Your task to perform on an android device: open app "Google Pay: Save, Pay, Manage" Image 0: 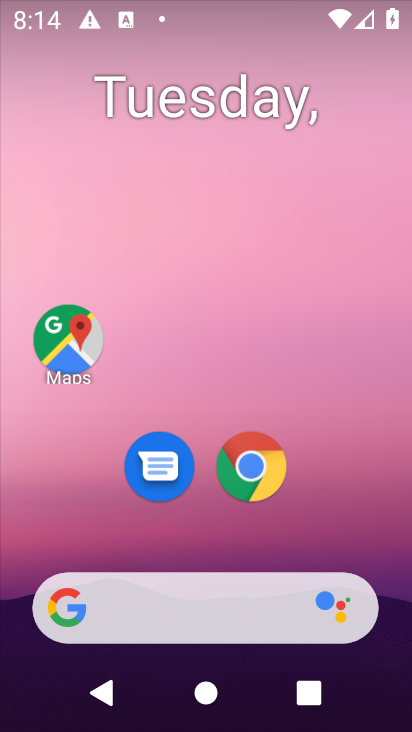
Step 0: drag from (149, 544) to (293, 27)
Your task to perform on an android device: open app "Google Pay: Save, Pay, Manage" Image 1: 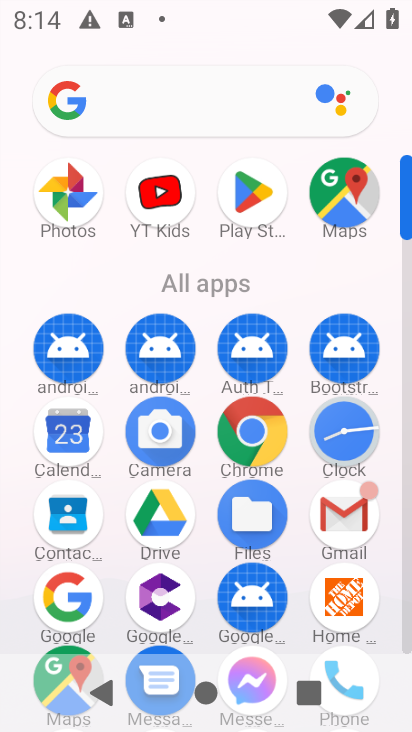
Step 1: click (250, 203)
Your task to perform on an android device: open app "Google Pay: Save, Pay, Manage" Image 2: 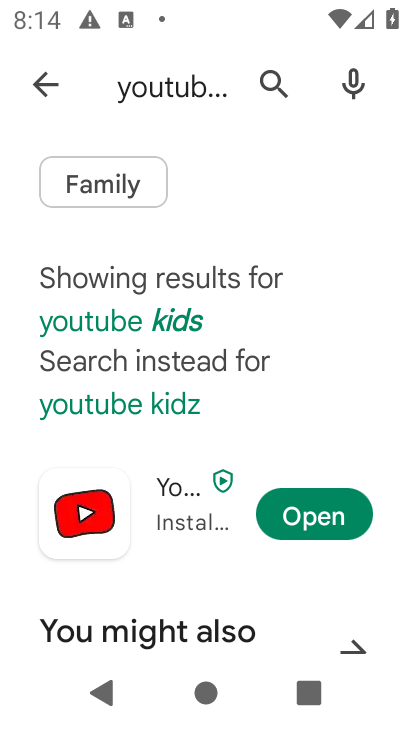
Step 2: click (269, 82)
Your task to perform on an android device: open app "Google Pay: Save, Pay, Manage" Image 3: 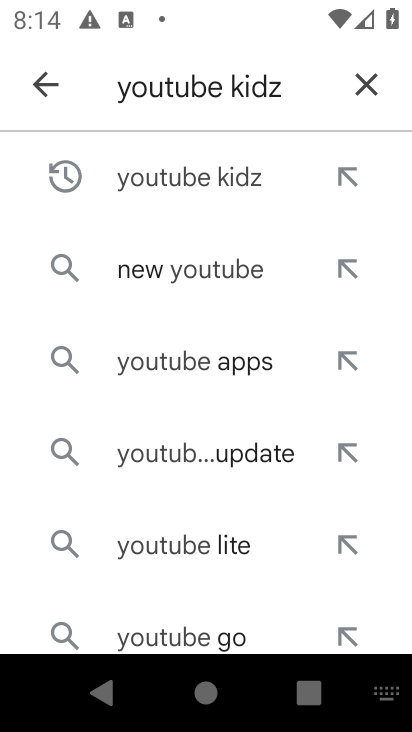
Step 3: click (372, 74)
Your task to perform on an android device: open app "Google Pay: Save, Pay, Manage" Image 4: 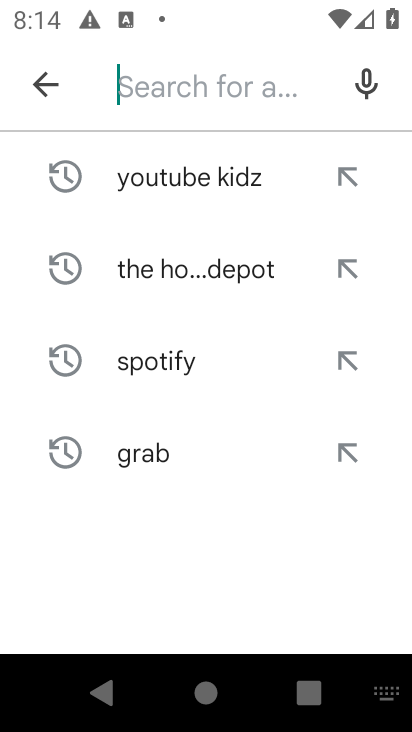
Step 4: click (168, 99)
Your task to perform on an android device: open app "Google Pay: Save, Pay, Manage" Image 5: 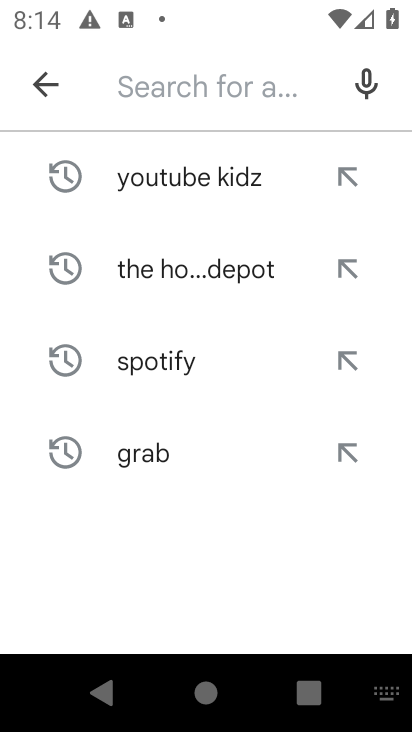
Step 5: type "Google Pay"
Your task to perform on an android device: open app "Google Pay: Save, Pay, Manage" Image 6: 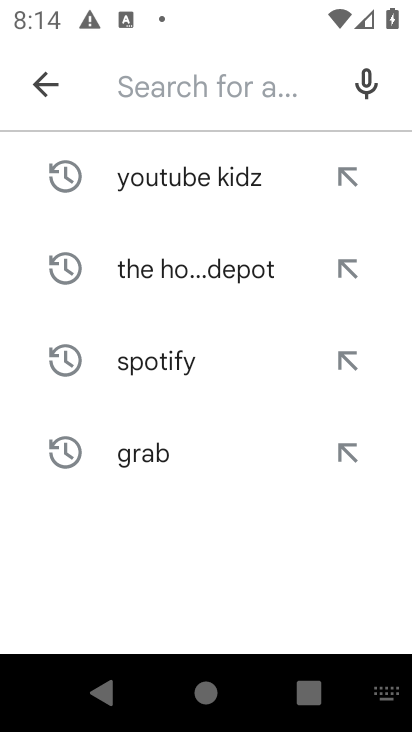
Step 6: click (178, 570)
Your task to perform on an android device: open app "Google Pay: Save, Pay, Manage" Image 7: 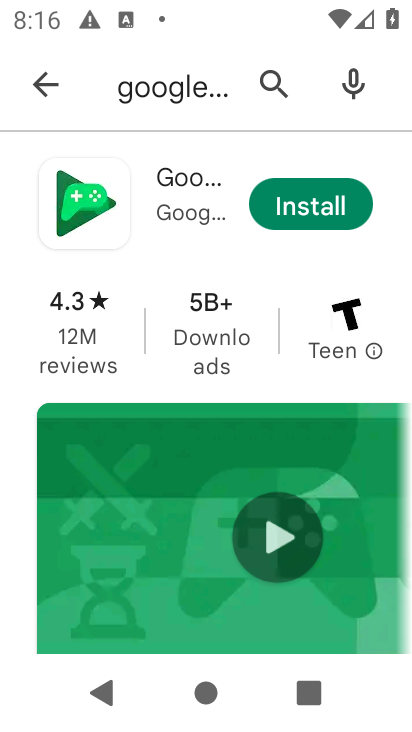
Step 7: click (273, 83)
Your task to perform on an android device: open app "Google Pay: Save, Pay, Manage" Image 8: 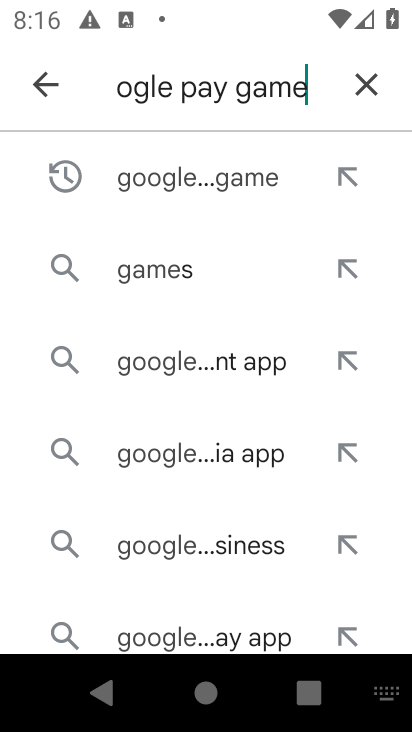
Step 8: click (349, 86)
Your task to perform on an android device: open app "Google Pay: Save, Pay, Manage" Image 9: 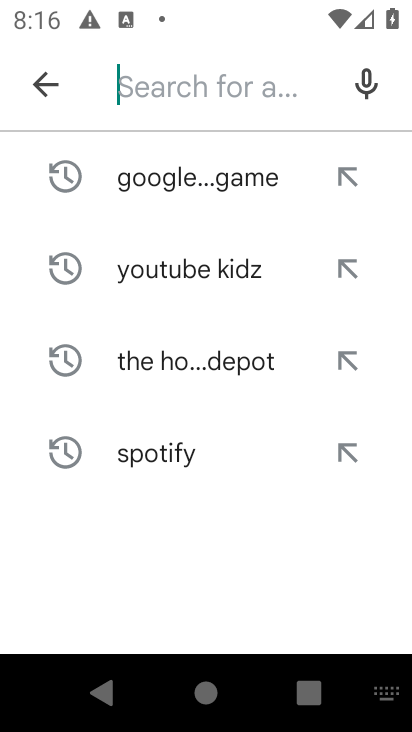
Step 9: click (170, 80)
Your task to perform on an android device: open app "Google Pay: Save, Pay, Manage" Image 10: 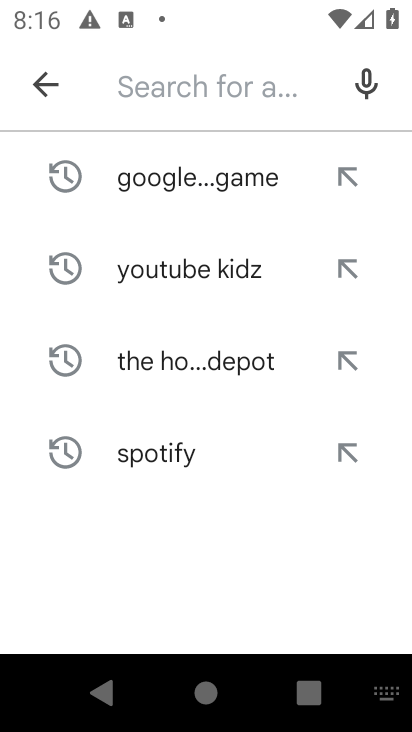
Step 10: type "Google Pay"
Your task to perform on an android device: open app "Google Pay: Save, Pay, Manage" Image 11: 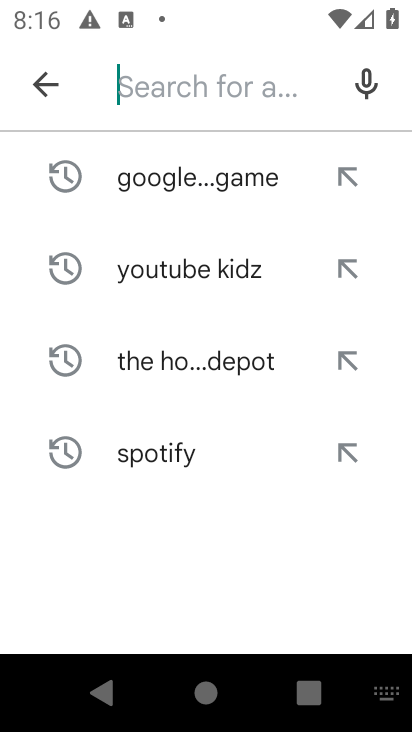
Step 11: click (139, 570)
Your task to perform on an android device: open app "Google Pay: Save, Pay, Manage" Image 12: 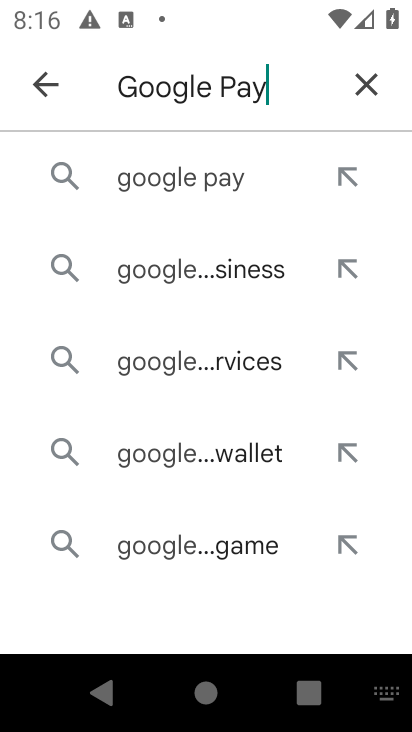
Step 12: click (157, 179)
Your task to perform on an android device: open app "Google Pay: Save, Pay, Manage" Image 13: 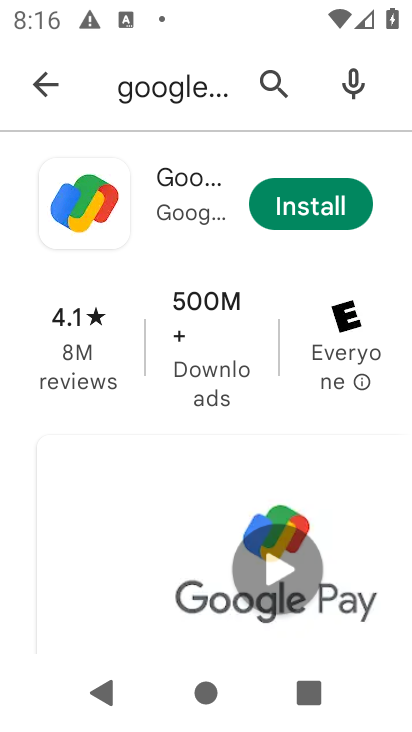
Step 13: task complete